Your task to perform on an android device: Search for the best vacuum on Amazon. Image 0: 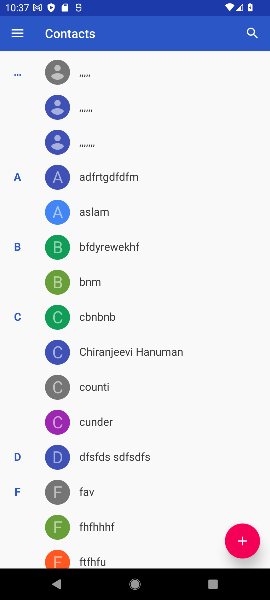
Step 0: press home button
Your task to perform on an android device: Search for the best vacuum on Amazon. Image 1: 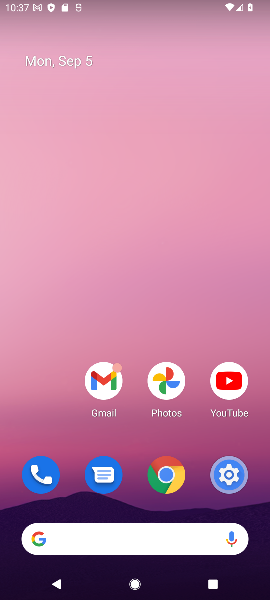
Step 1: click (130, 535)
Your task to perform on an android device: Search for the best vacuum on Amazon. Image 2: 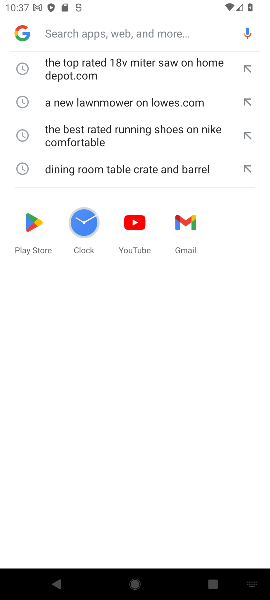
Step 2: type "the best vacuum on Amazon"
Your task to perform on an android device: Search for the best vacuum on Amazon. Image 3: 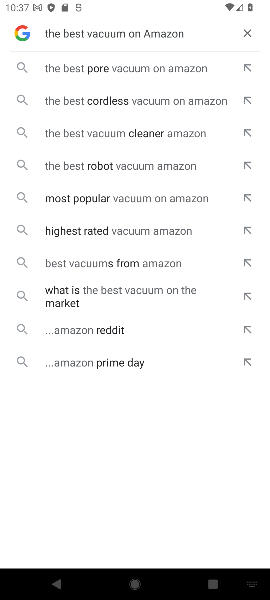
Step 3: click (163, 70)
Your task to perform on an android device: Search for the best vacuum on Amazon. Image 4: 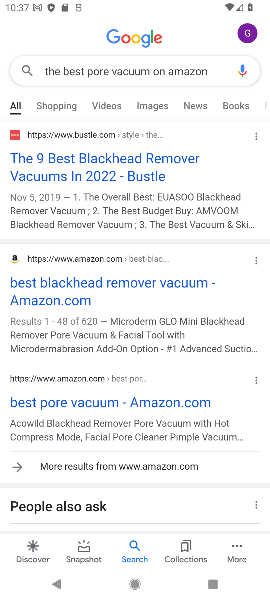
Step 4: task complete